Your task to perform on an android device: turn off javascript in the chrome app Image 0: 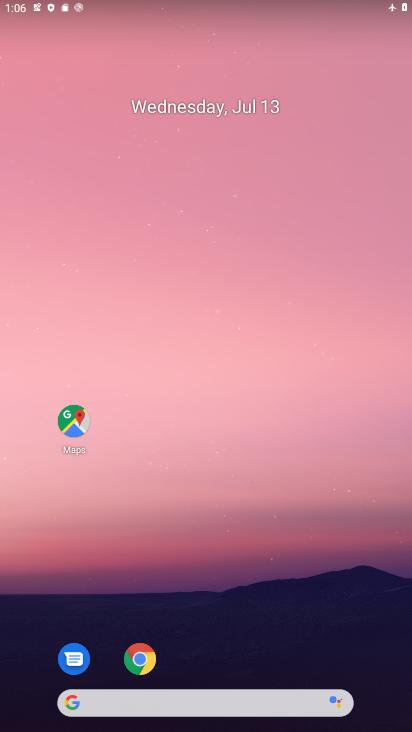
Step 0: click (145, 654)
Your task to perform on an android device: turn off javascript in the chrome app Image 1: 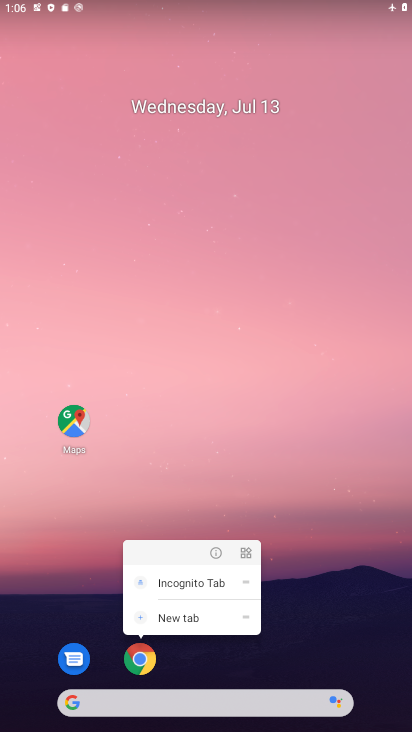
Step 1: click (145, 657)
Your task to perform on an android device: turn off javascript in the chrome app Image 2: 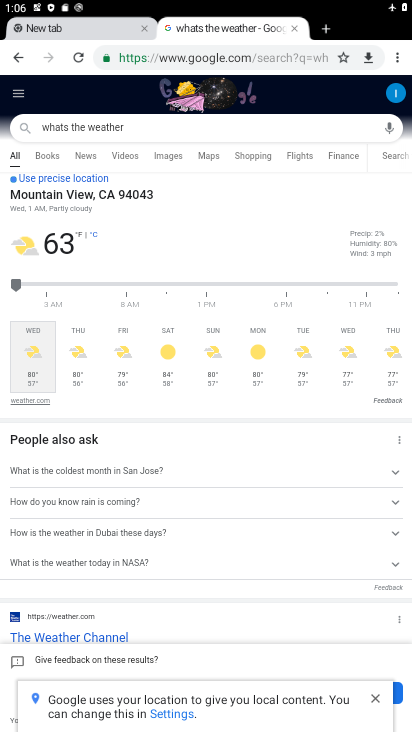
Step 2: click (395, 58)
Your task to perform on an android device: turn off javascript in the chrome app Image 3: 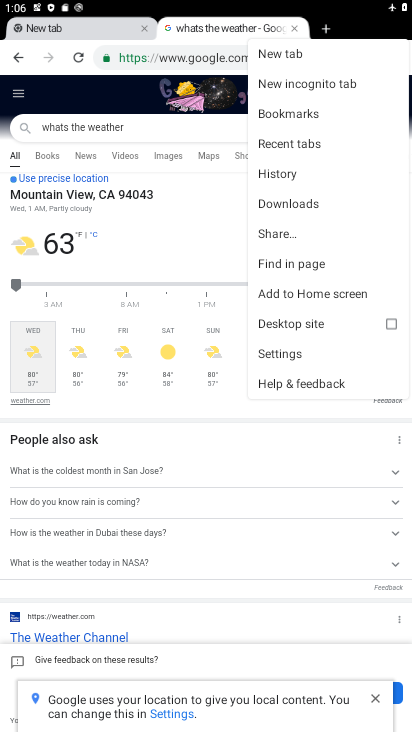
Step 3: click (313, 355)
Your task to perform on an android device: turn off javascript in the chrome app Image 4: 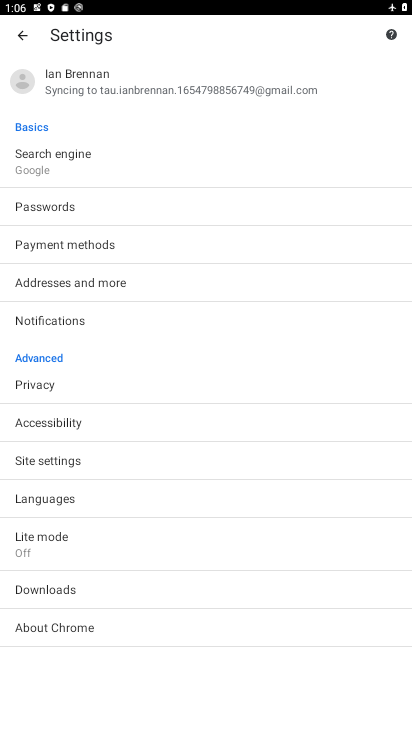
Step 4: click (48, 459)
Your task to perform on an android device: turn off javascript in the chrome app Image 5: 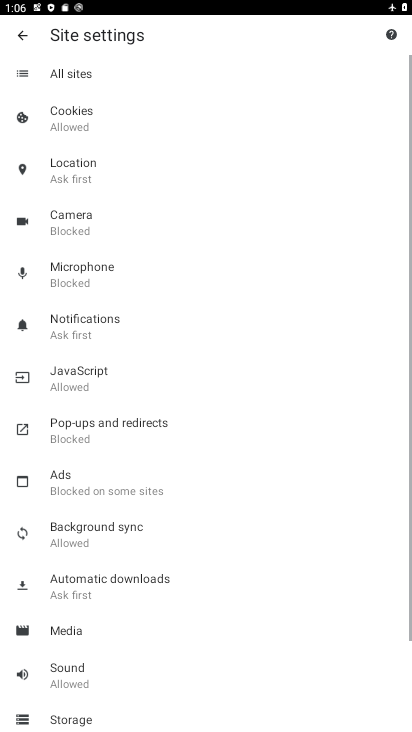
Step 5: click (95, 373)
Your task to perform on an android device: turn off javascript in the chrome app Image 6: 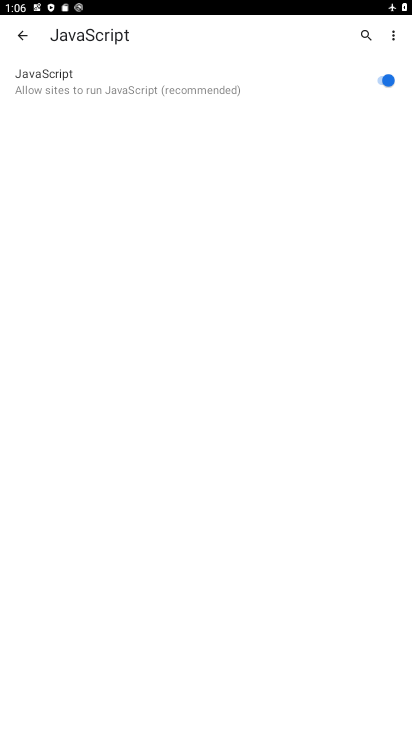
Step 6: click (388, 75)
Your task to perform on an android device: turn off javascript in the chrome app Image 7: 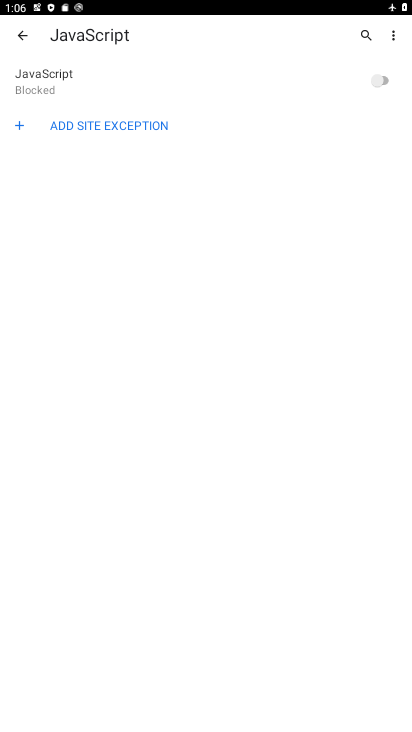
Step 7: task complete